Your task to perform on an android device: Search for razer deathadder on newegg, select the first entry, add it to the cart, then select checkout. Image 0: 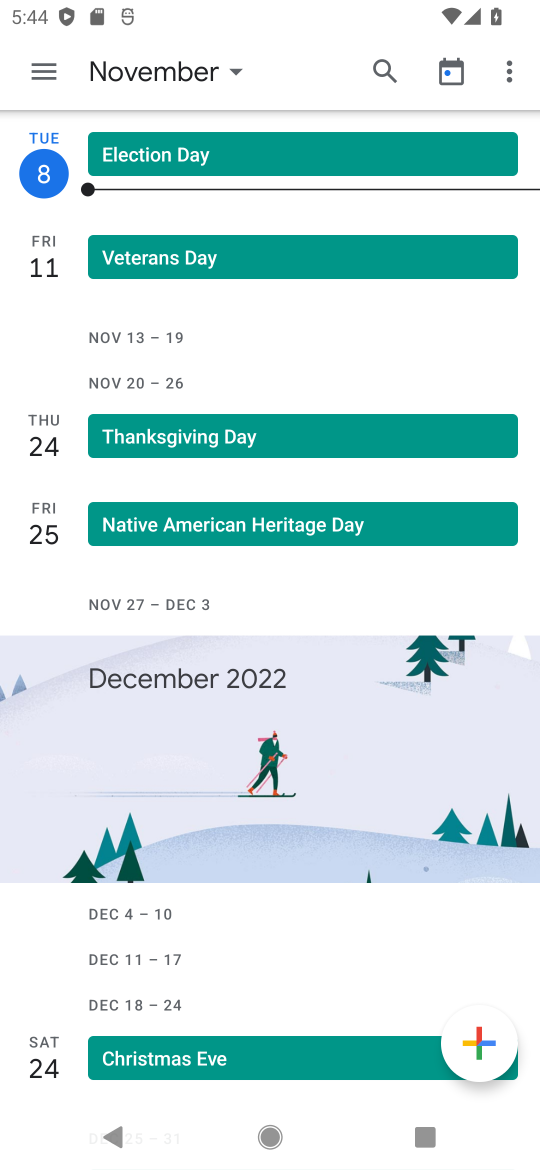
Step 0: press home button
Your task to perform on an android device: Search for razer deathadder on newegg, select the first entry, add it to the cart, then select checkout. Image 1: 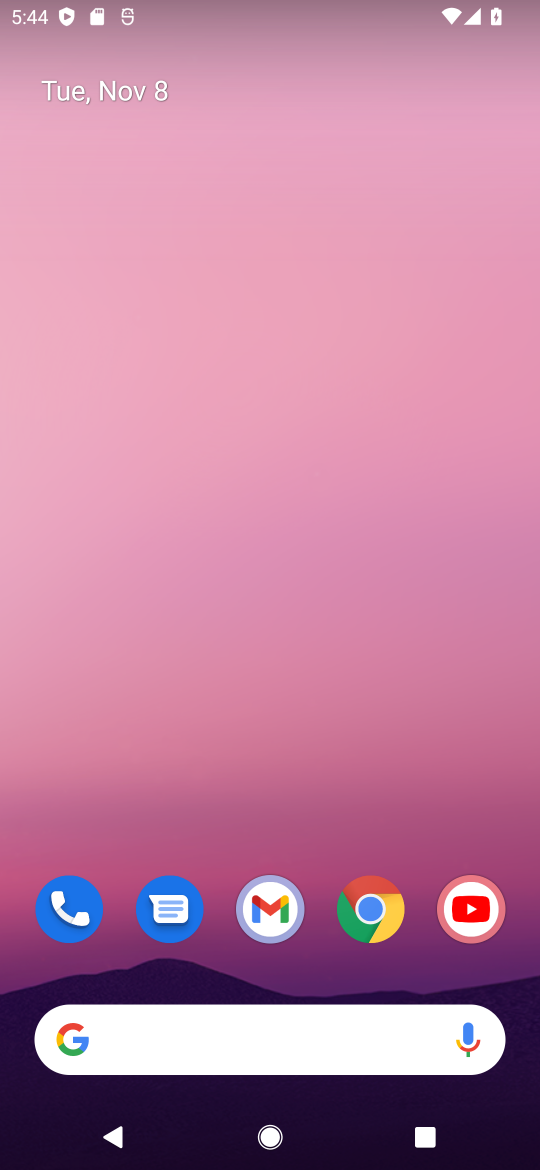
Step 1: click (375, 920)
Your task to perform on an android device: Search for razer deathadder on newegg, select the first entry, add it to the cart, then select checkout. Image 2: 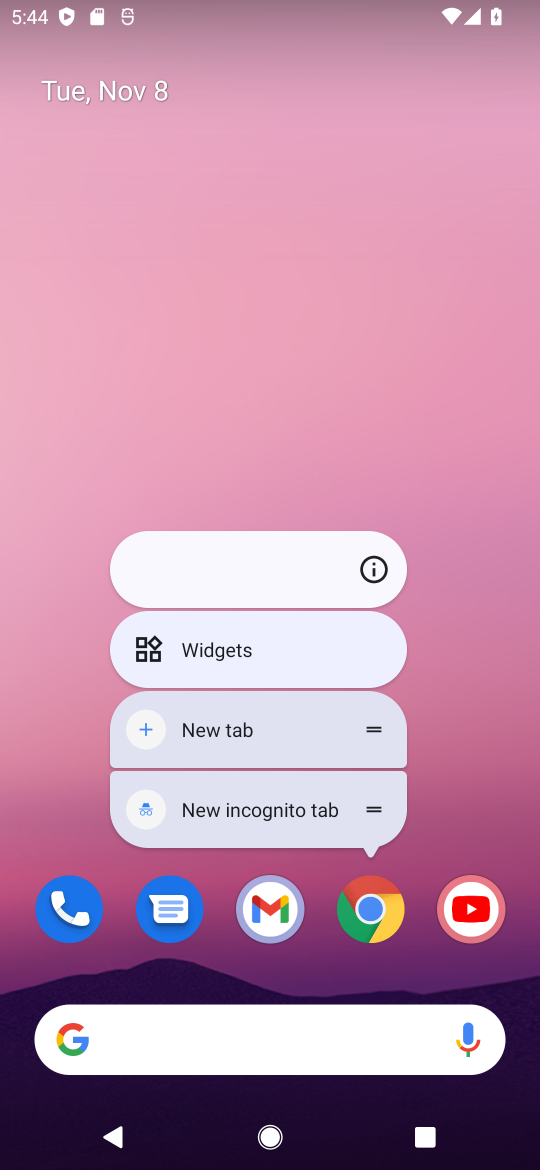
Step 2: click (377, 912)
Your task to perform on an android device: Search for razer deathadder on newegg, select the first entry, add it to the cart, then select checkout. Image 3: 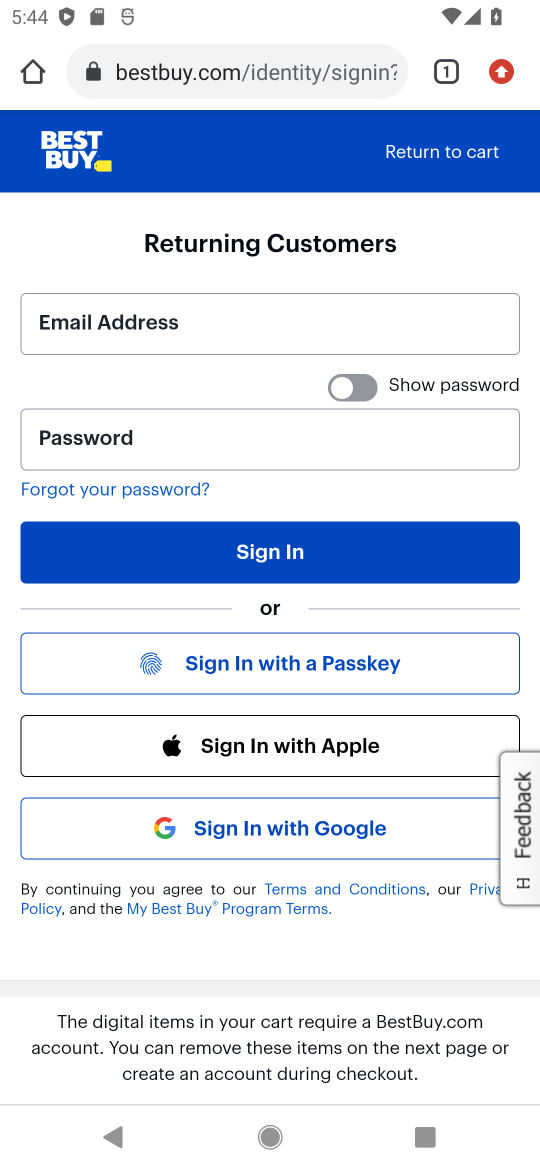
Step 3: click (273, 71)
Your task to perform on an android device: Search for razer deathadder on newegg, select the first entry, add it to the cart, then select checkout. Image 4: 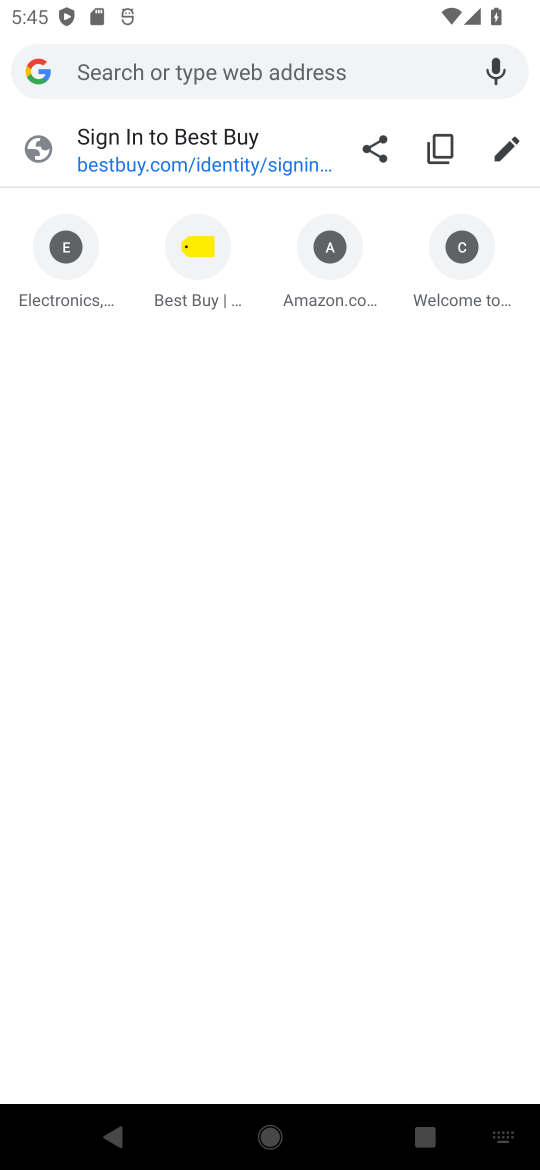
Step 4: type "newegg"
Your task to perform on an android device: Search for razer deathadder on newegg, select the first entry, add it to the cart, then select checkout. Image 5: 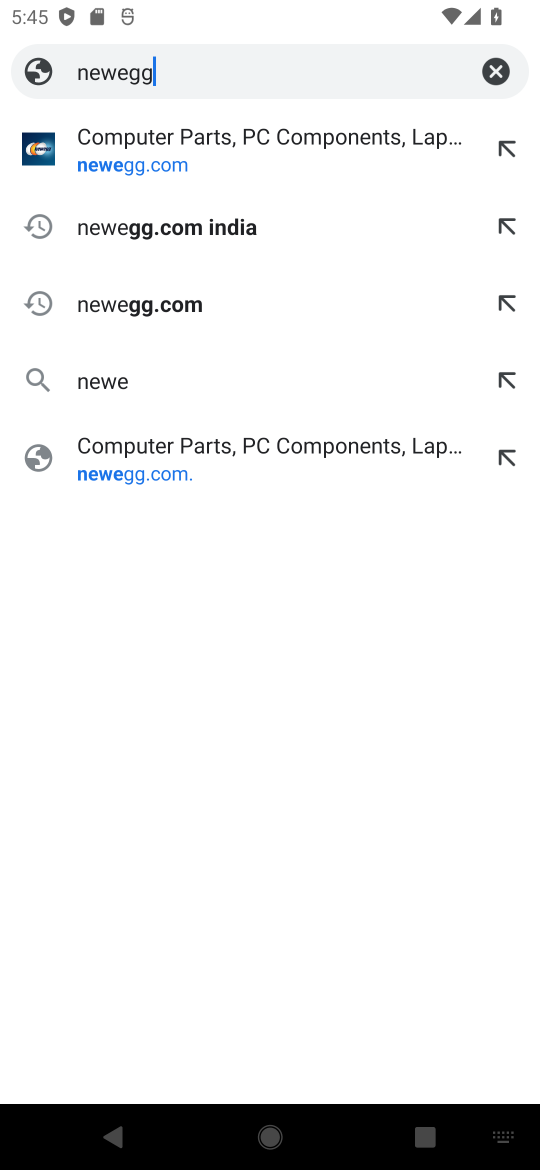
Step 5: press enter
Your task to perform on an android device: Search for razer deathadder on newegg, select the first entry, add it to the cart, then select checkout. Image 6: 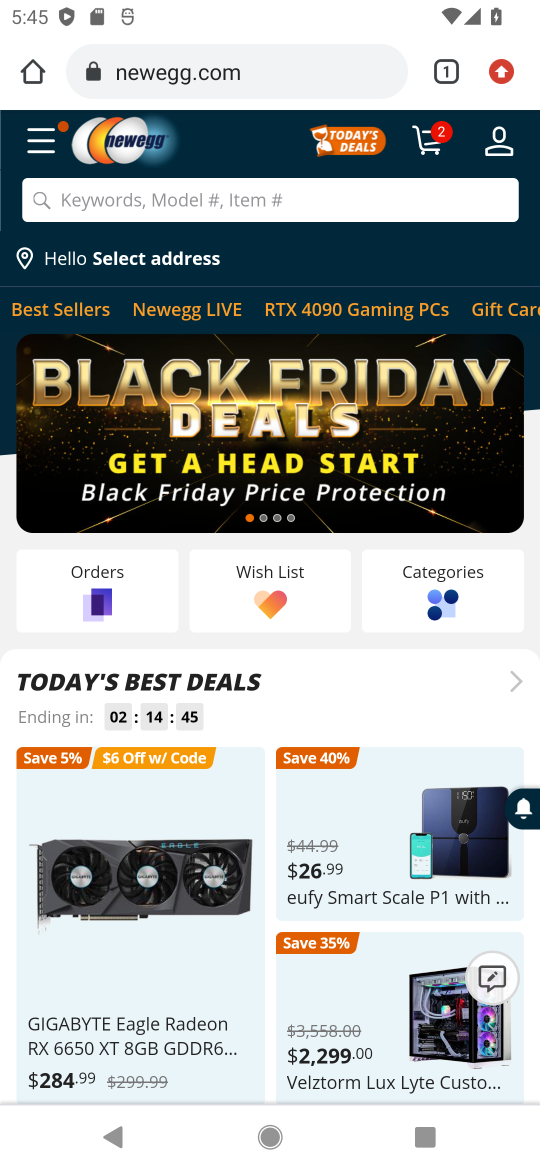
Step 6: click (122, 198)
Your task to perform on an android device: Search for razer deathadder on newegg, select the first entry, add it to the cart, then select checkout. Image 7: 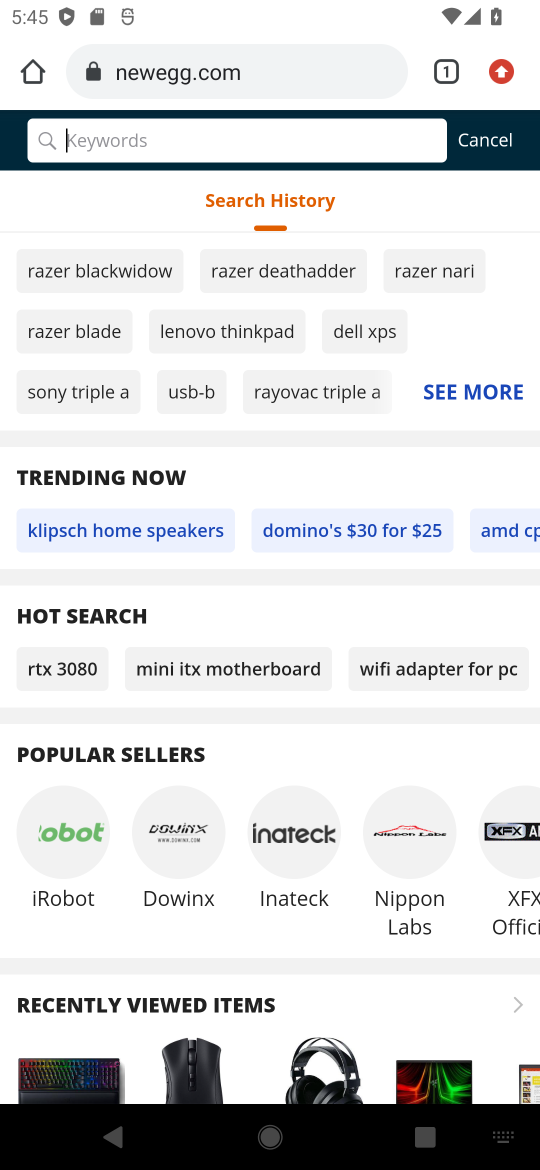
Step 7: type " razer deathadder"
Your task to perform on an android device: Search for razer deathadder on newegg, select the first entry, add it to the cart, then select checkout. Image 8: 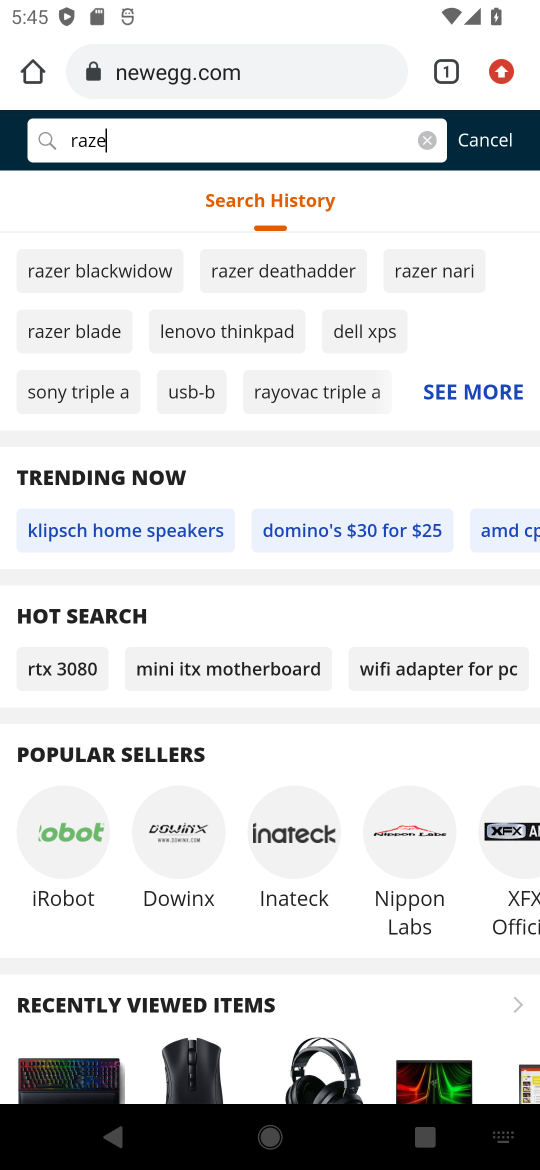
Step 8: press enter
Your task to perform on an android device: Search for razer deathadder on newegg, select the first entry, add it to the cart, then select checkout. Image 9: 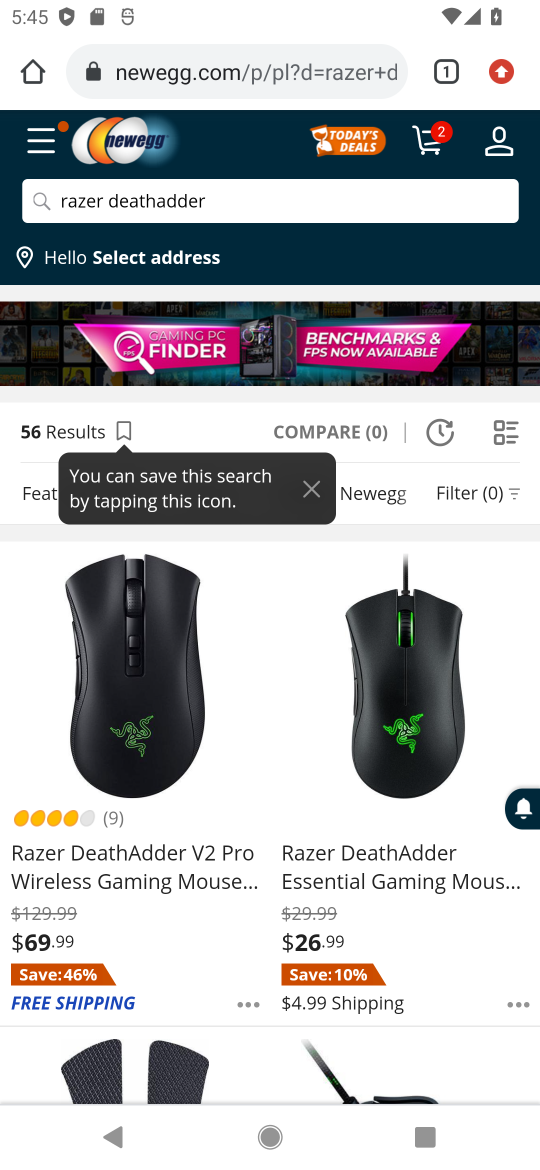
Step 9: click (181, 824)
Your task to perform on an android device: Search for razer deathadder on newegg, select the first entry, add it to the cart, then select checkout. Image 10: 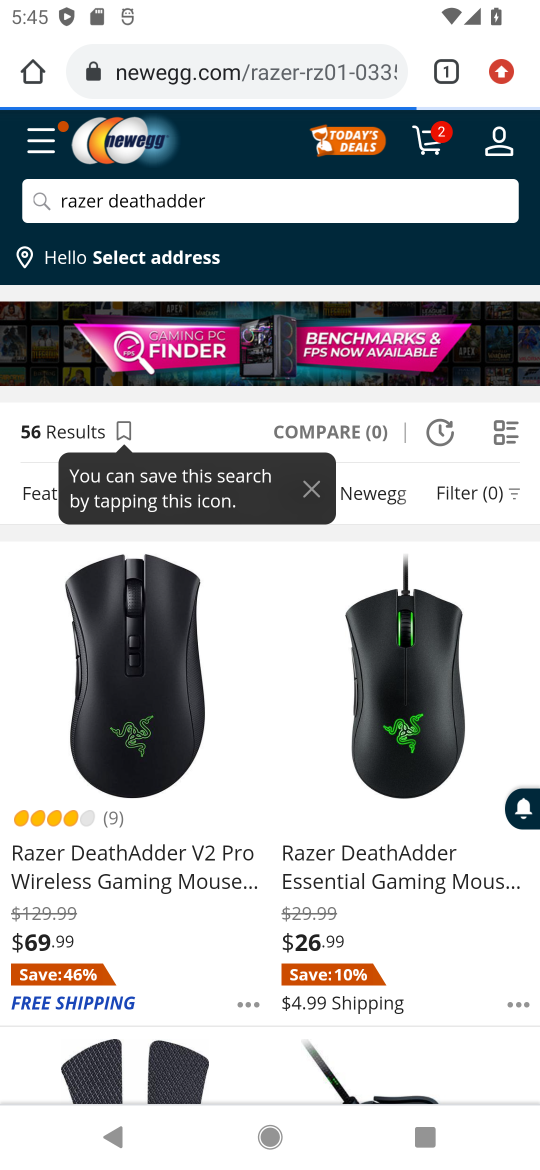
Step 10: click (123, 722)
Your task to perform on an android device: Search for razer deathadder on newegg, select the first entry, add it to the cart, then select checkout. Image 11: 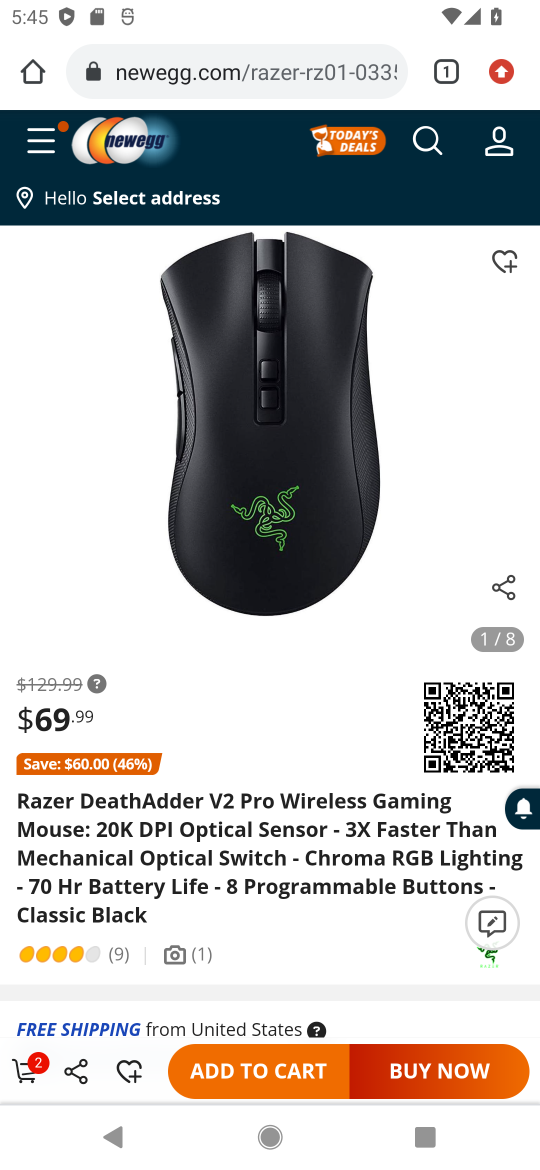
Step 11: click (287, 1065)
Your task to perform on an android device: Search for razer deathadder on newegg, select the first entry, add it to the cart, then select checkout. Image 12: 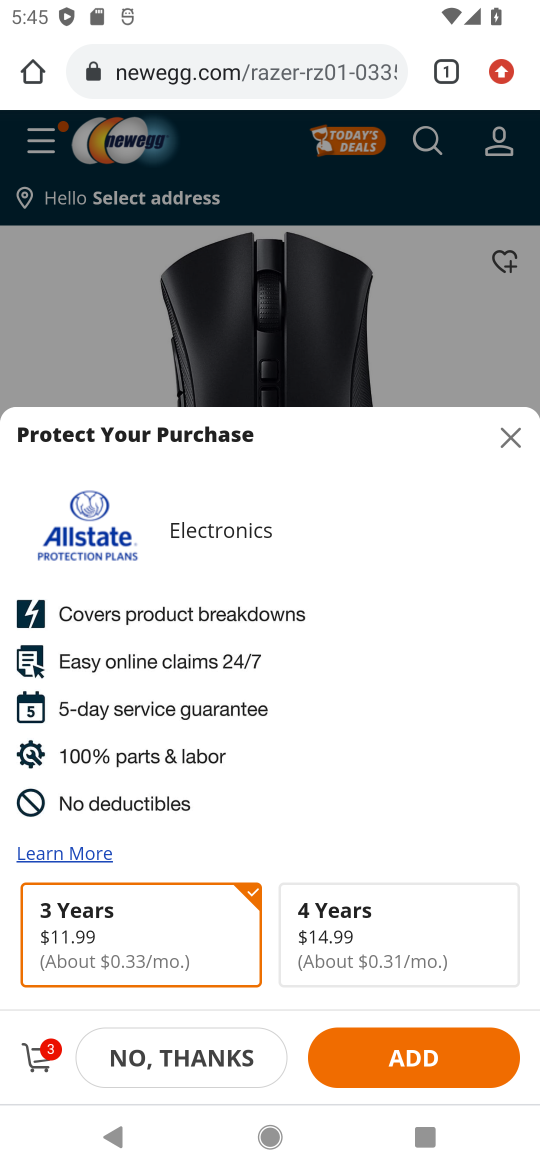
Step 12: click (45, 1045)
Your task to perform on an android device: Search for razer deathadder on newegg, select the first entry, add it to the cart, then select checkout. Image 13: 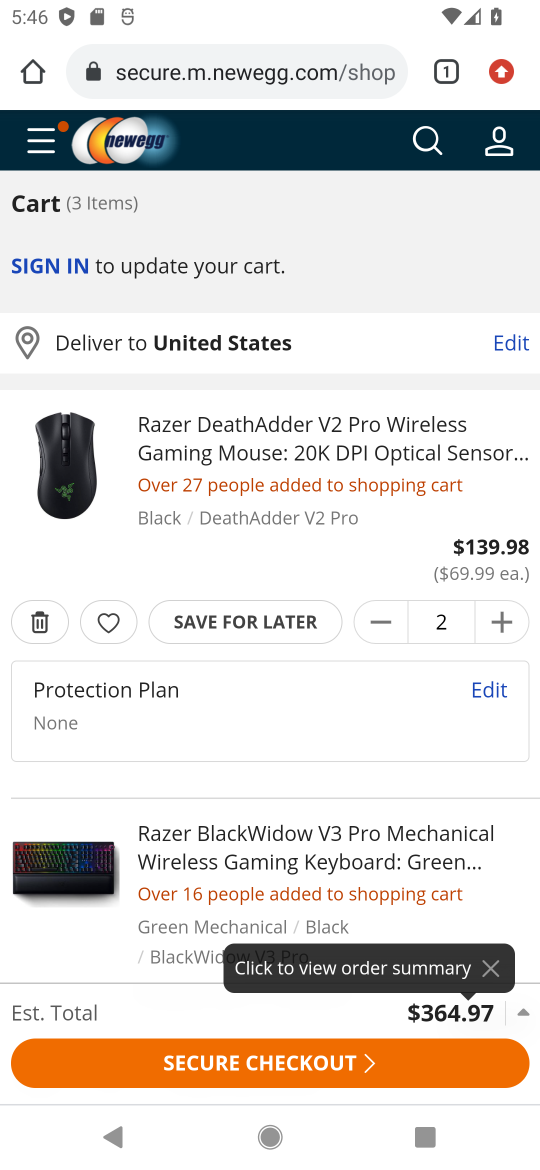
Step 13: drag from (170, 846) to (406, 365)
Your task to perform on an android device: Search for razer deathadder on newegg, select the first entry, add it to the cart, then select checkout. Image 14: 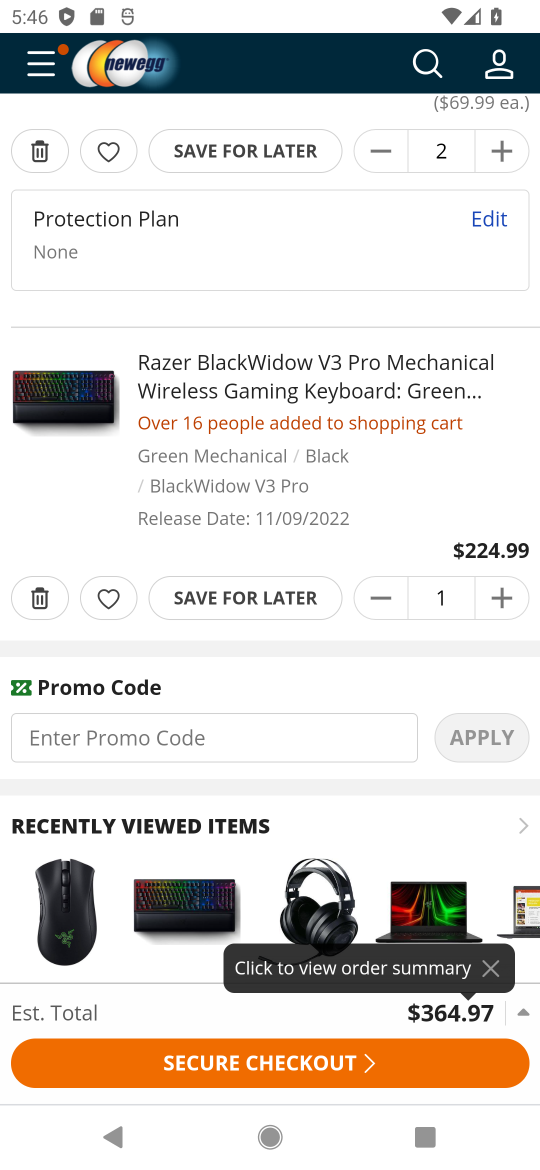
Step 14: click (37, 596)
Your task to perform on an android device: Search for razer deathadder on newegg, select the first entry, add it to the cart, then select checkout. Image 15: 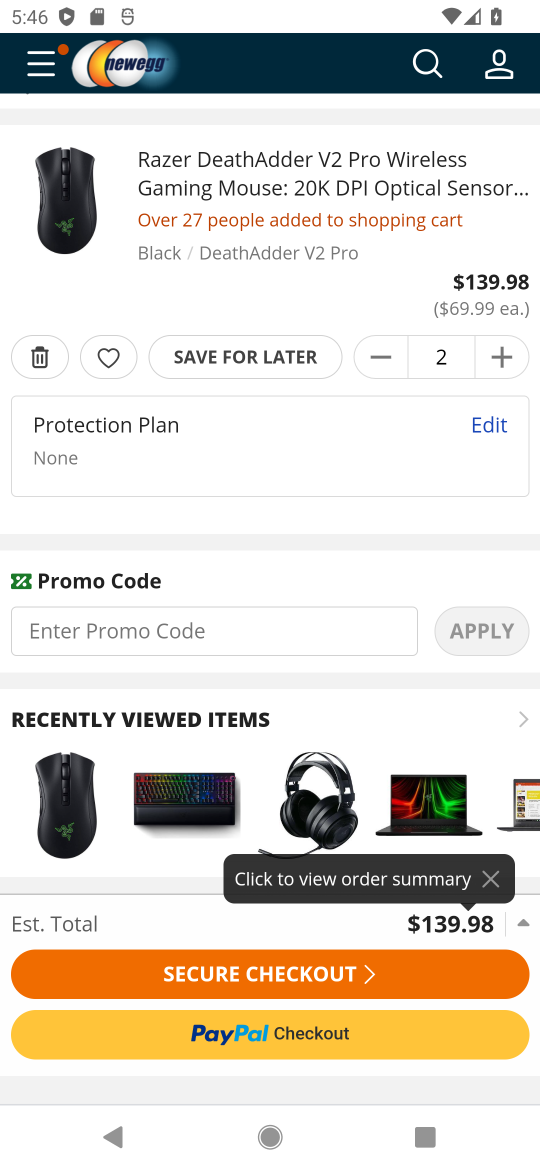
Step 15: drag from (289, 493) to (251, 873)
Your task to perform on an android device: Search for razer deathadder on newegg, select the first entry, add it to the cart, then select checkout. Image 16: 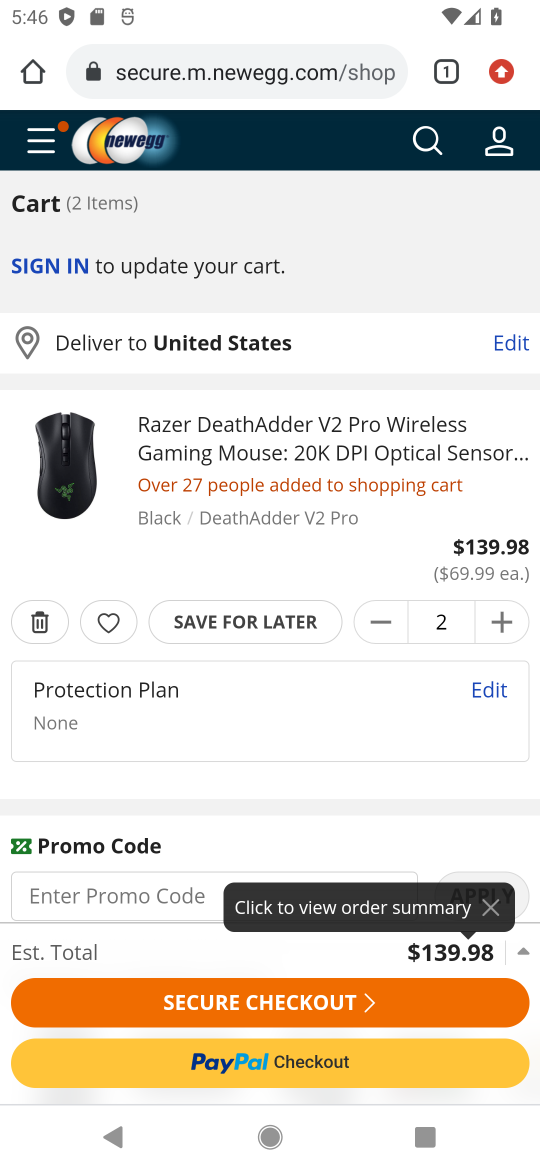
Step 16: click (302, 997)
Your task to perform on an android device: Search for razer deathadder on newegg, select the first entry, add it to the cart, then select checkout. Image 17: 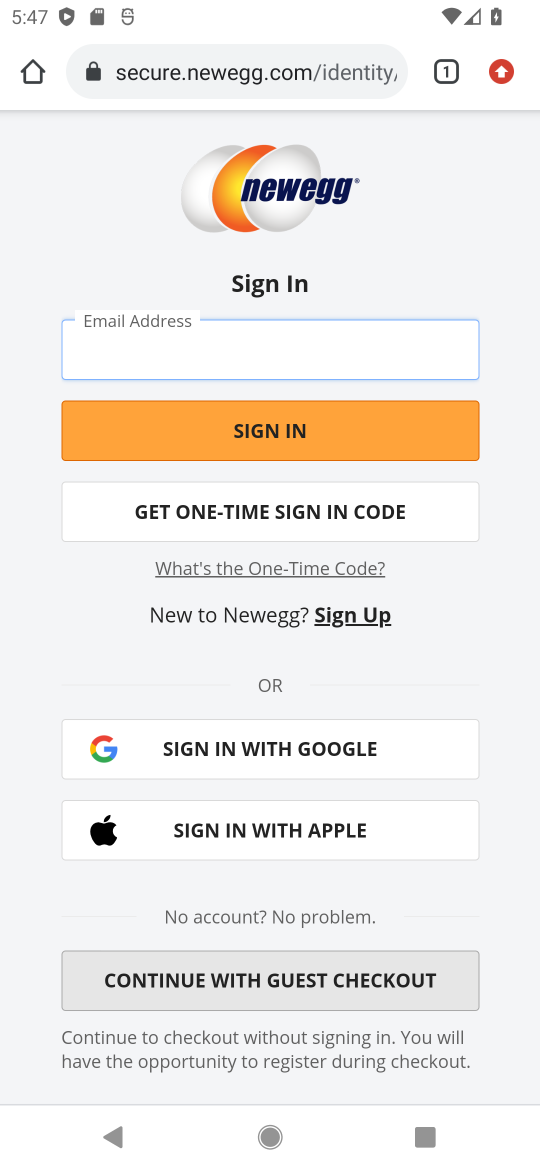
Step 17: task complete